Your task to perform on an android device: Go to Yahoo.com Image 0: 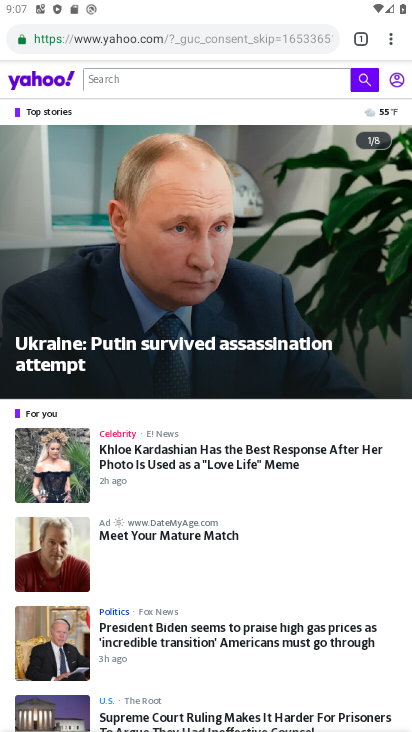
Step 0: drag from (243, 504) to (258, 198)
Your task to perform on an android device: Go to Yahoo.com Image 1: 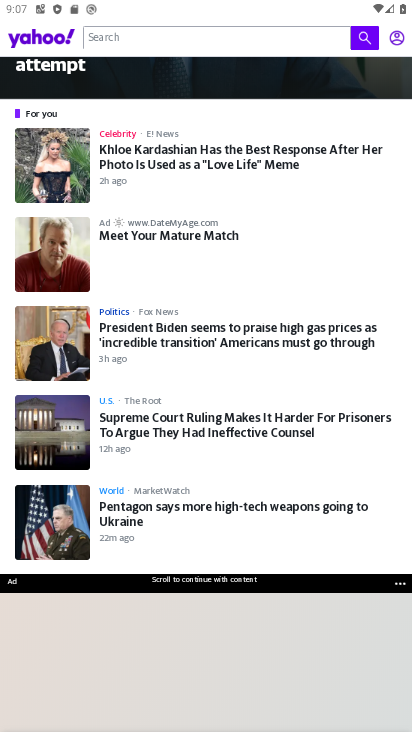
Step 1: task complete